Your task to perform on an android device: read, delete, or share a saved page in the chrome app Image 0: 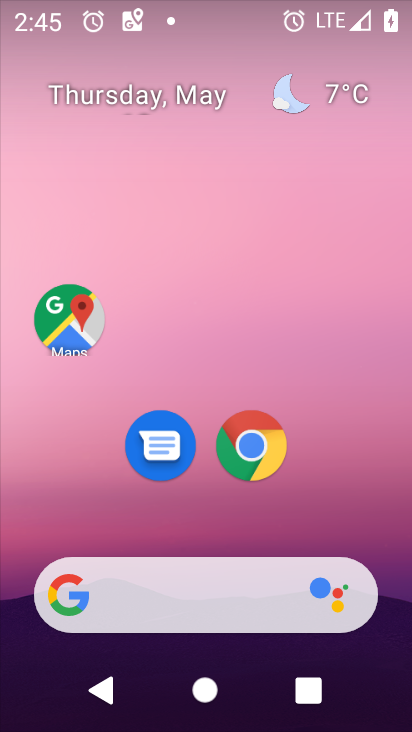
Step 0: press home button
Your task to perform on an android device: read, delete, or share a saved page in the chrome app Image 1: 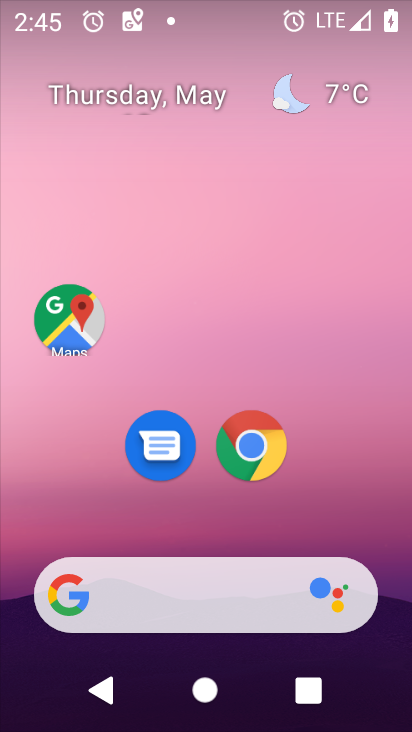
Step 1: click (256, 451)
Your task to perform on an android device: read, delete, or share a saved page in the chrome app Image 2: 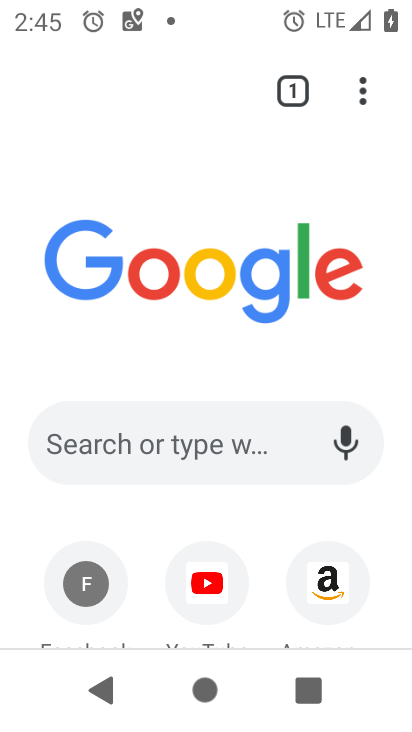
Step 2: click (371, 88)
Your task to perform on an android device: read, delete, or share a saved page in the chrome app Image 3: 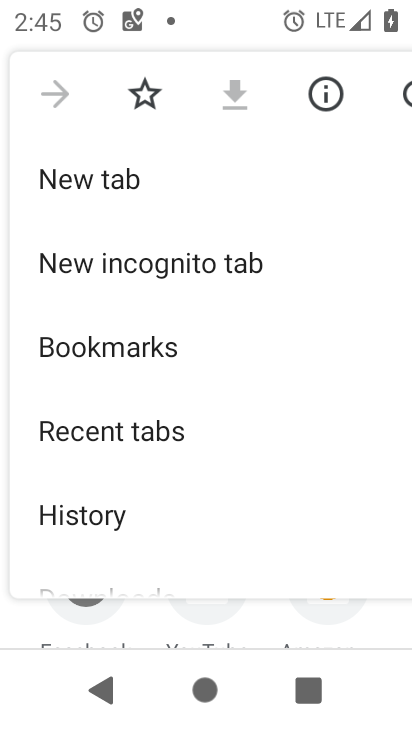
Step 3: drag from (238, 483) to (219, 209)
Your task to perform on an android device: read, delete, or share a saved page in the chrome app Image 4: 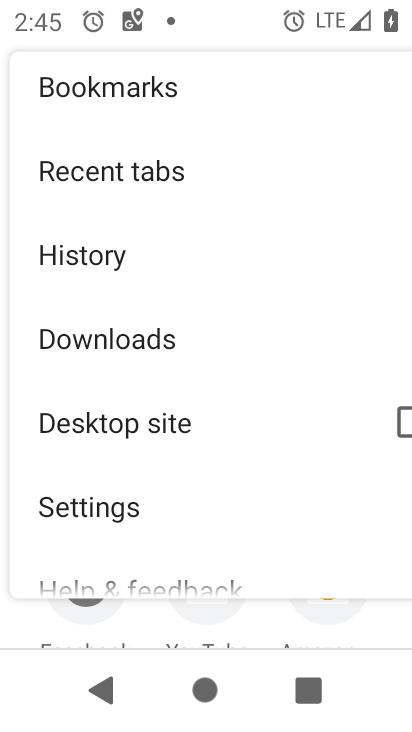
Step 4: click (97, 339)
Your task to perform on an android device: read, delete, or share a saved page in the chrome app Image 5: 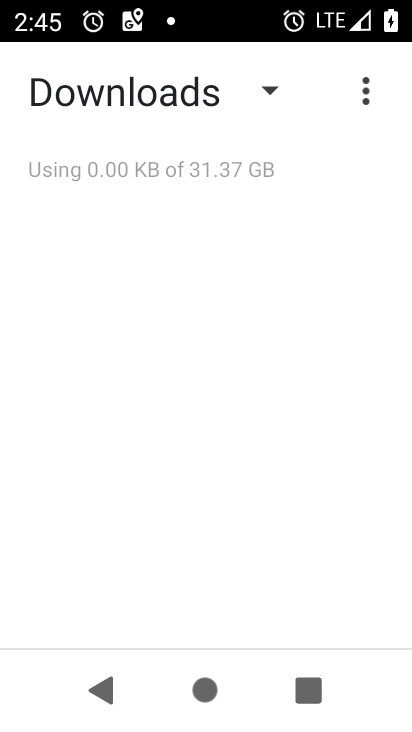
Step 5: click (267, 94)
Your task to perform on an android device: read, delete, or share a saved page in the chrome app Image 6: 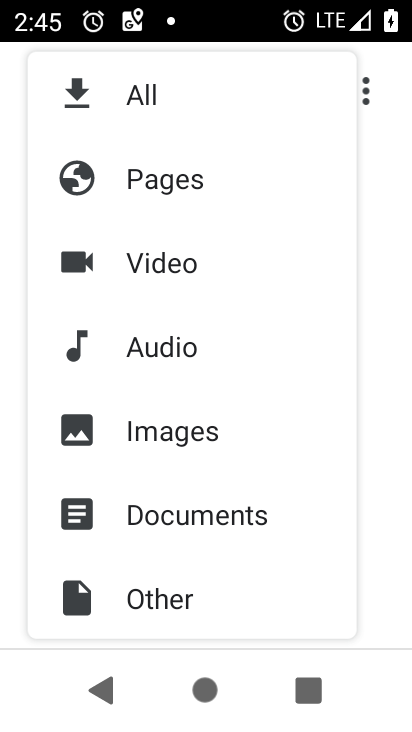
Step 6: click (162, 189)
Your task to perform on an android device: read, delete, or share a saved page in the chrome app Image 7: 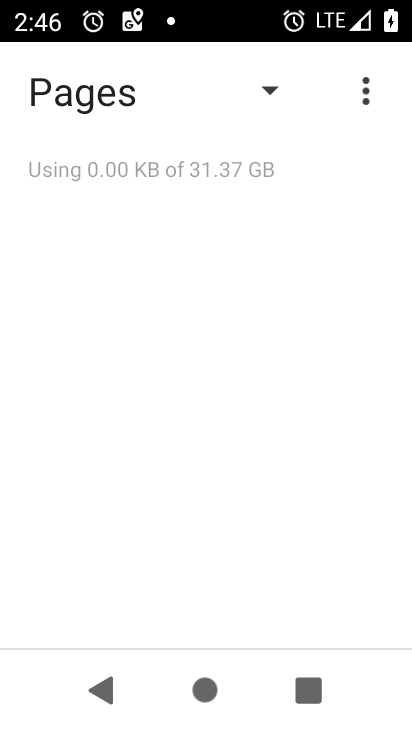
Step 7: task complete